Your task to perform on an android device: choose inbox layout in the gmail app Image 0: 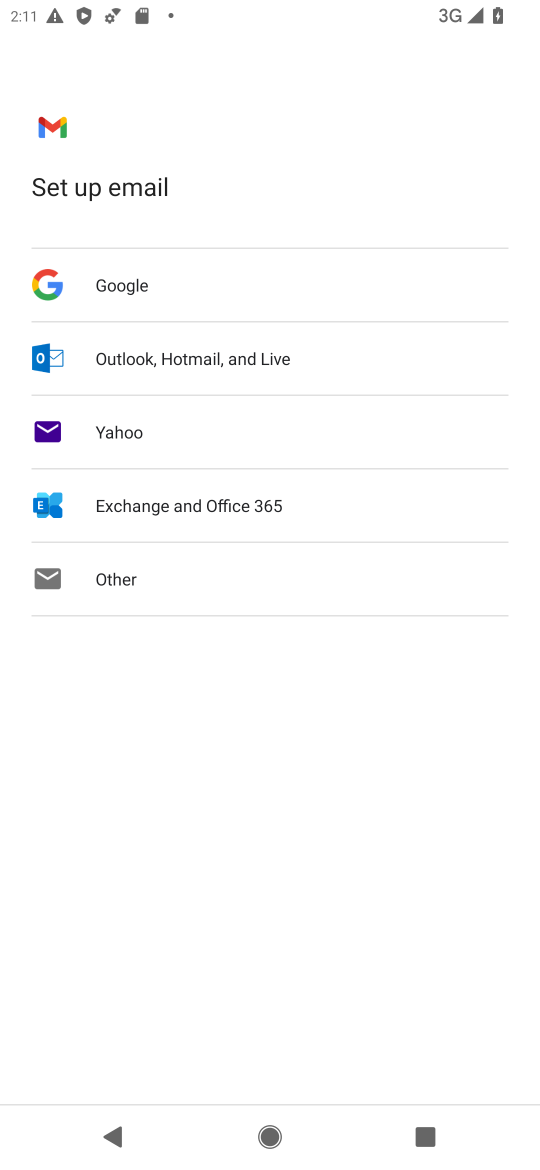
Step 0: press back button
Your task to perform on an android device: choose inbox layout in the gmail app Image 1: 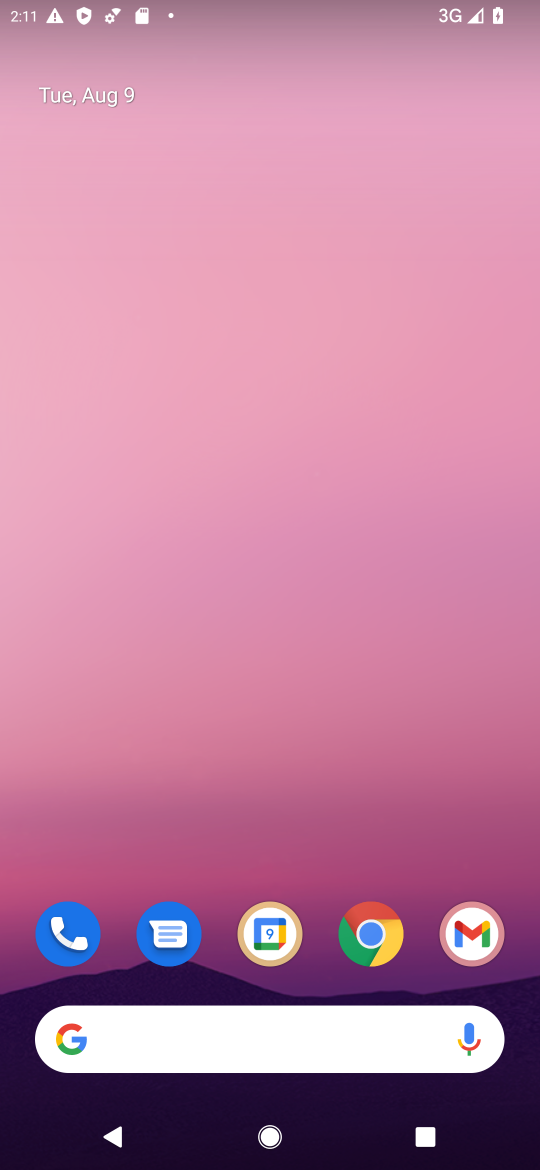
Step 1: click (484, 921)
Your task to perform on an android device: choose inbox layout in the gmail app Image 2: 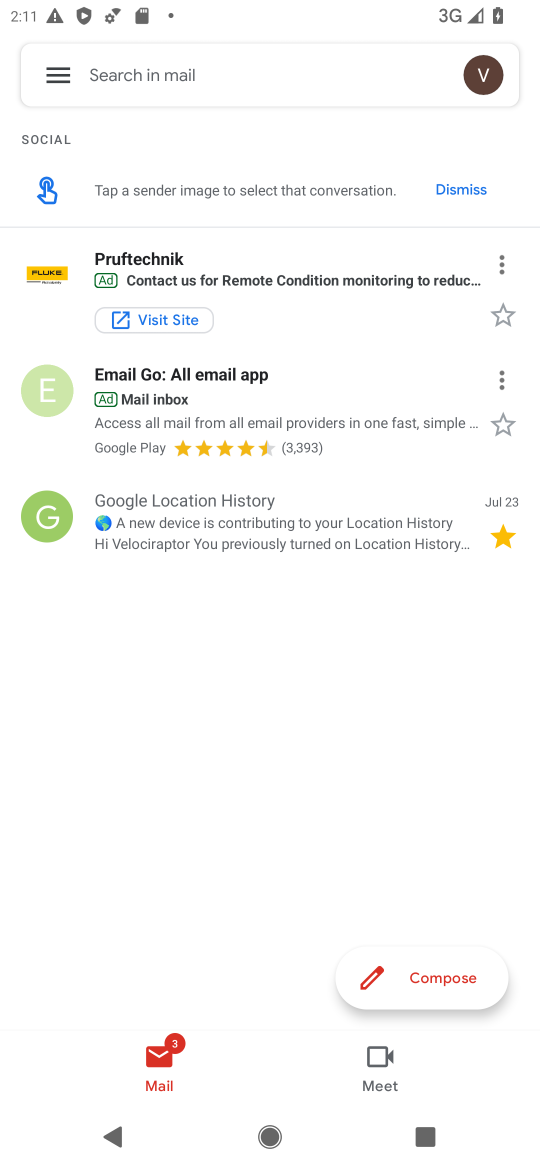
Step 2: click (59, 54)
Your task to perform on an android device: choose inbox layout in the gmail app Image 3: 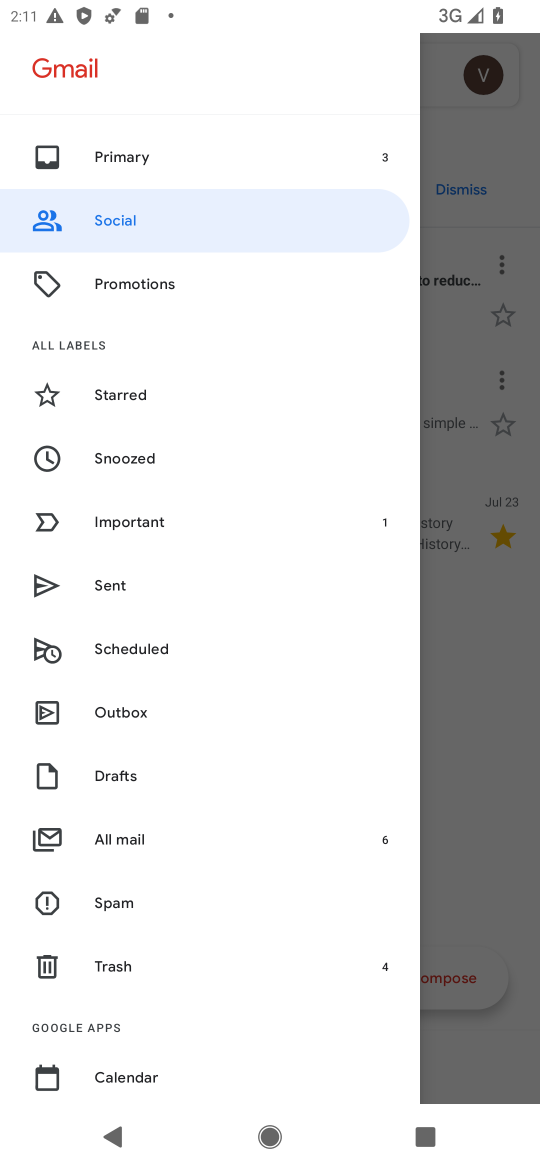
Step 3: task complete